Your task to perform on an android device: make emails show in primary in the gmail app Image 0: 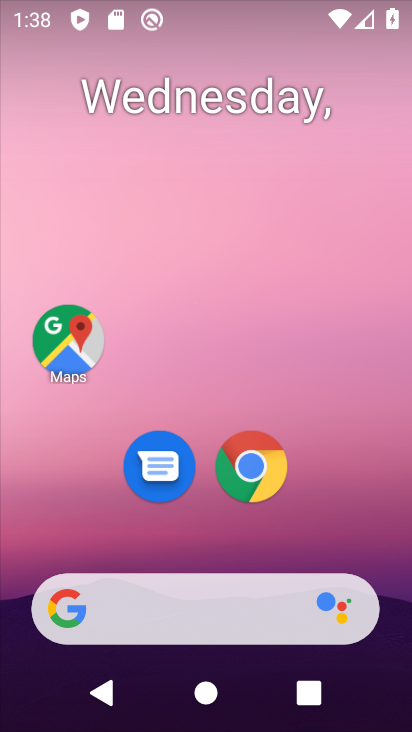
Step 0: drag from (316, 432) to (273, 45)
Your task to perform on an android device: make emails show in primary in the gmail app Image 1: 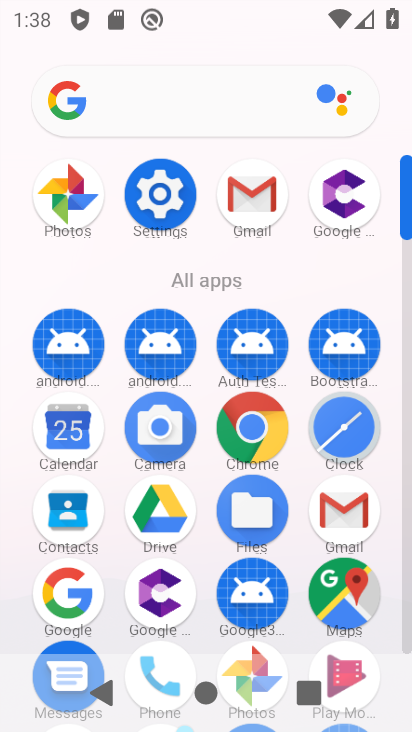
Step 1: drag from (9, 596) to (0, 235)
Your task to perform on an android device: make emails show in primary in the gmail app Image 2: 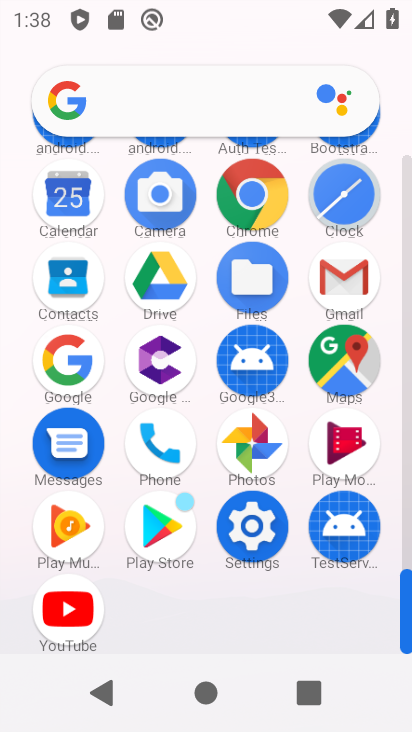
Step 2: click (342, 274)
Your task to perform on an android device: make emails show in primary in the gmail app Image 3: 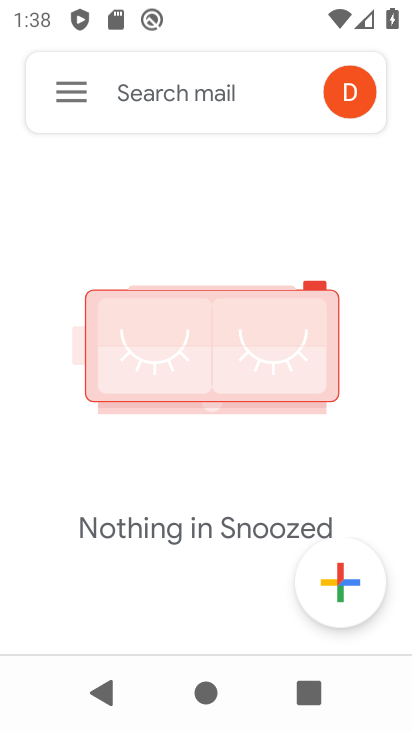
Step 3: click (71, 99)
Your task to perform on an android device: make emails show in primary in the gmail app Image 4: 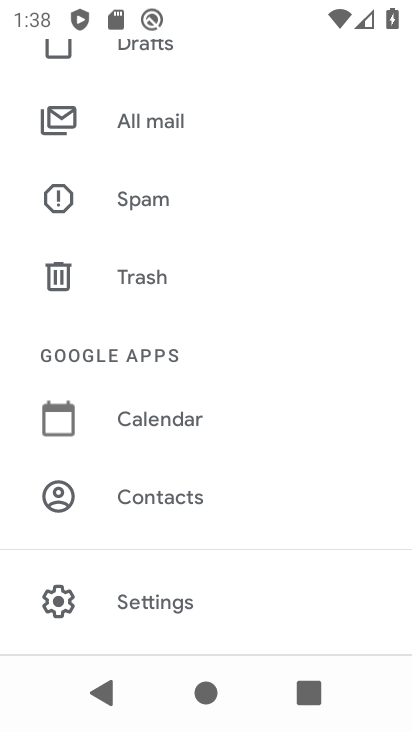
Step 4: drag from (283, 605) to (276, 122)
Your task to perform on an android device: make emails show in primary in the gmail app Image 5: 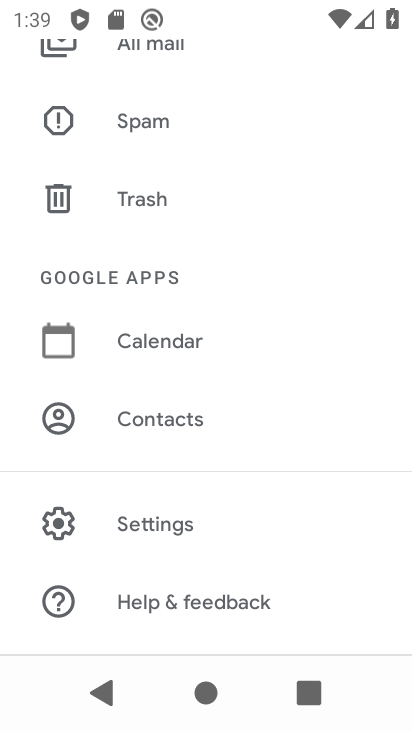
Step 5: click (156, 523)
Your task to perform on an android device: make emails show in primary in the gmail app Image 6: 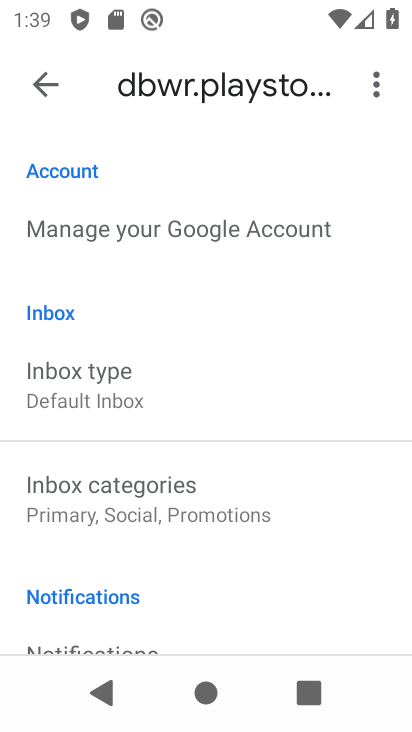
Step 6: click (136, 382)
Your task to perform on an android device: make emails show in primary in the gmail app Image 7: 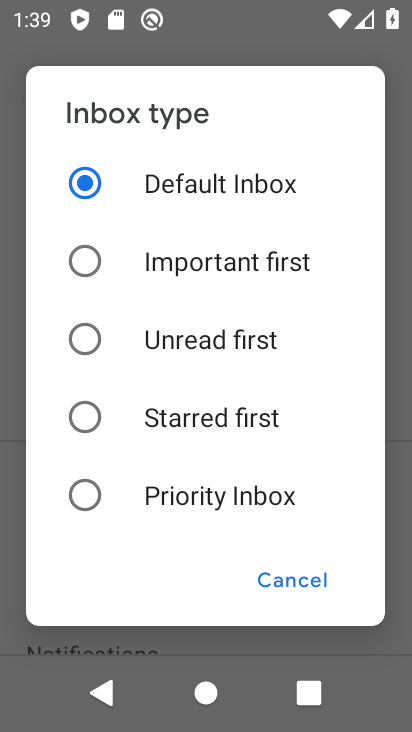
Step 7: click (222, 179)
Your task to perform on an android device: make emails show in primary in the gmail app Image 8: 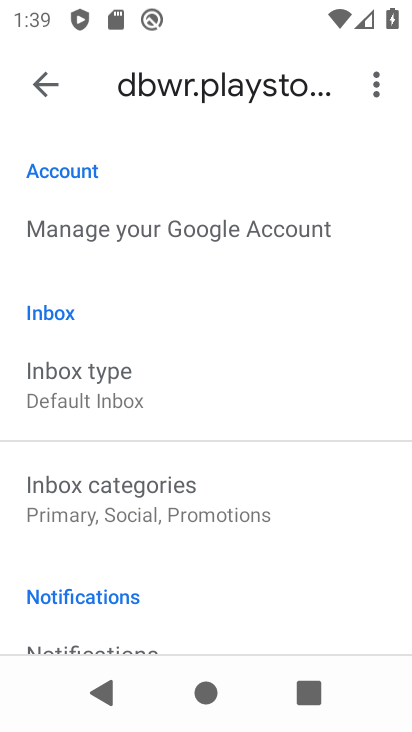
Step 8: click (140, 497)
Your task to perform on an android device: make emails show in primary in the gmail app Image 9: 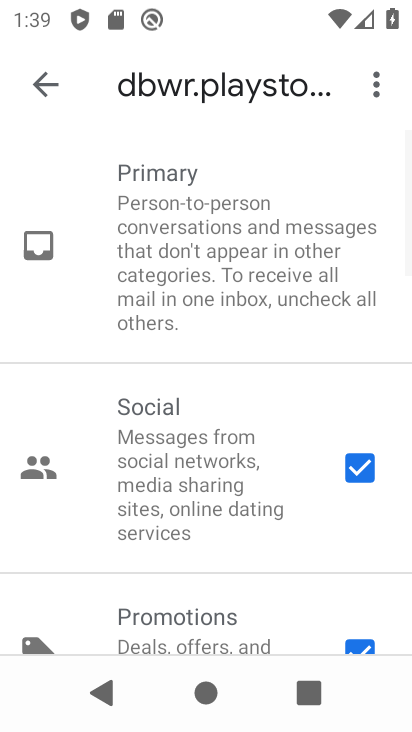
Step 9: click (352, 465)
Your task to perform on an android device: make emails show in primary in the gmail app Image 10: 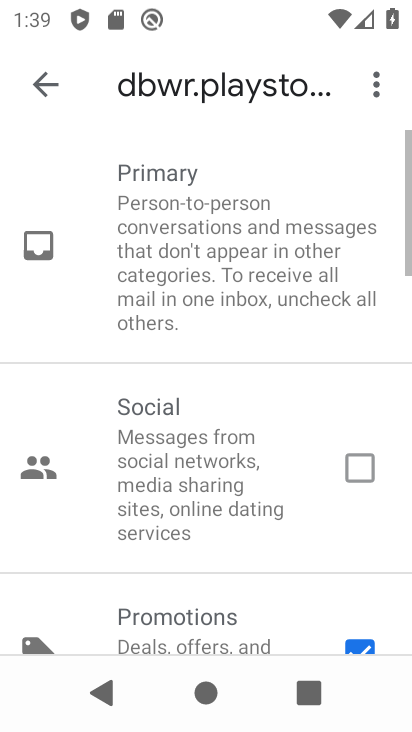
Step 10: drag from (233, 557) to (203, 254)
Your task to perform on an android device: make emails show in primary in the gmail app Image 11: 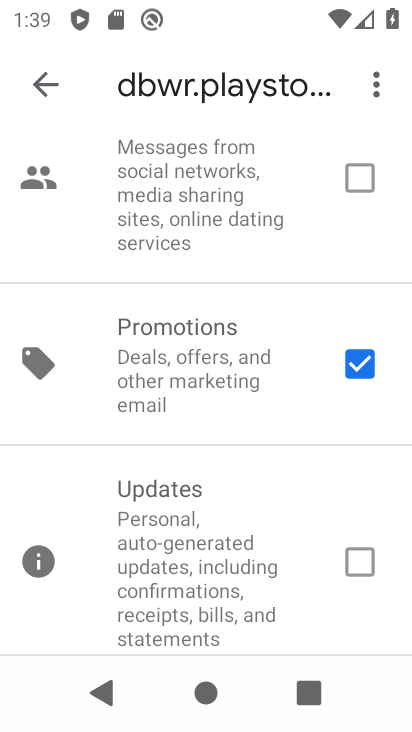
Step 11: click (353, 357)
Your task to perform on an android device: make emails show in primary in the gmail app Image 12: 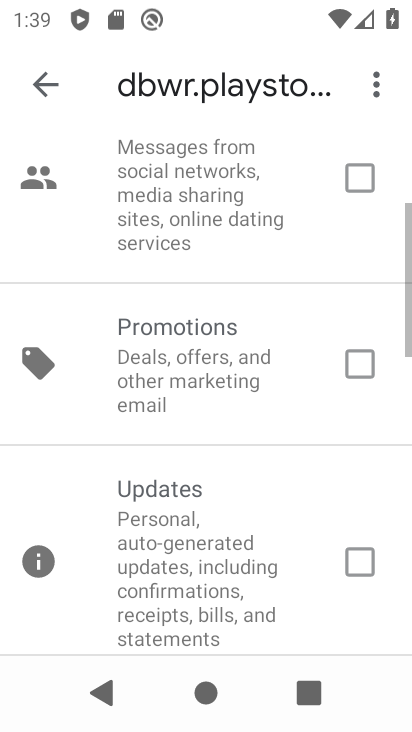
Step 12: drag from (283, 250) to (274, 642)
Your task to perform on an android device: make emails show in primary in the gmail app Image 13: 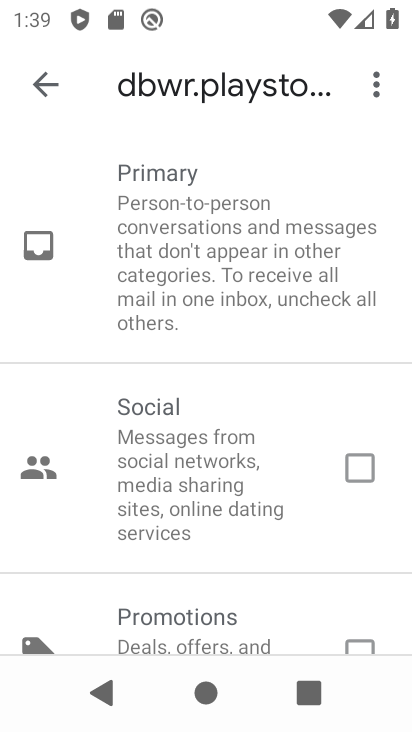
Step 13: click (35, 87)
Your task to perform on an android device: make emails show in primary in the gmail app Image 14: 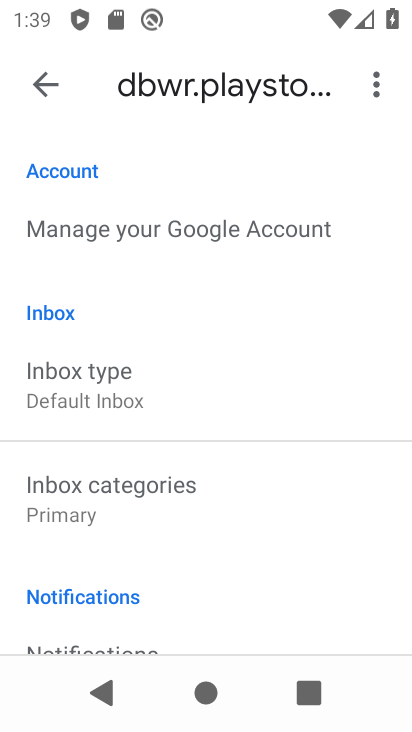
Step 14: task complete